Your task to perform on an android device: turn off location Image 0: 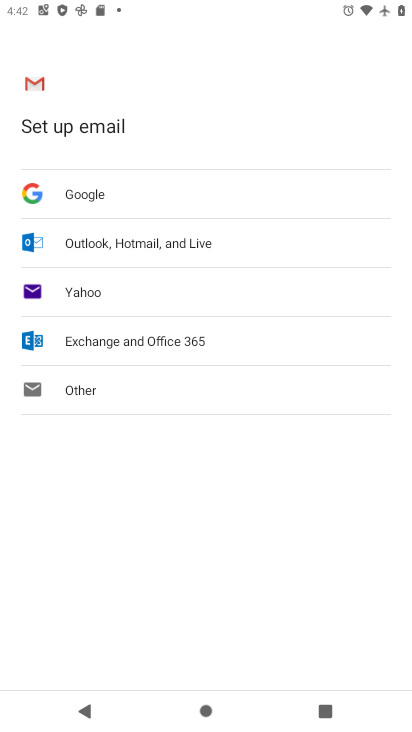
Step 0: press home button
Your task to perform on an android device: turn off location Image 1: 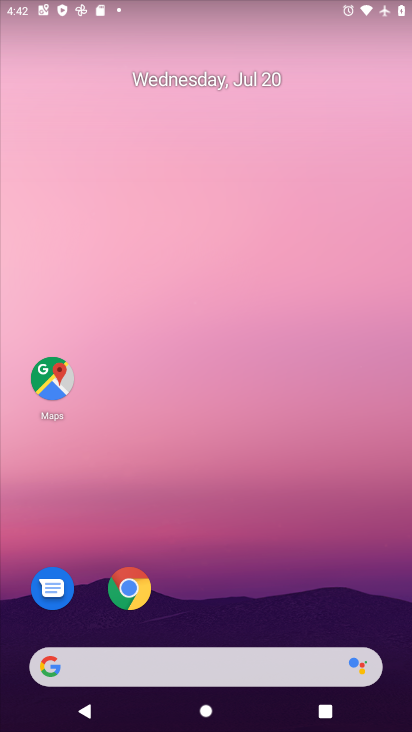
Step 1: drag from (290, 565) to (286, 85)
Your task to perform on an android device: turn off location Image 2: 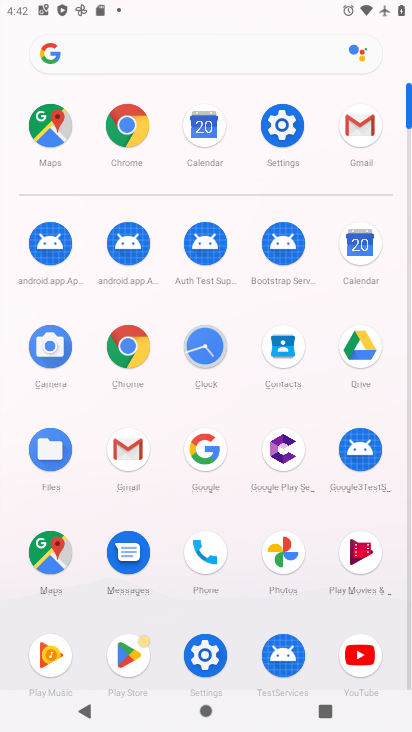
Step 2: click (284, 122)
Your task to perform on an android device: turn off location Image 3: 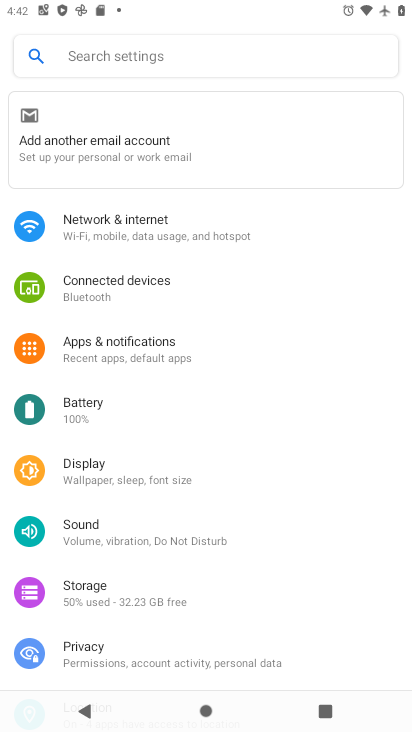
Step 3: drag from (164, 627) to (255, 297)
Your task to perform on an android device: turn off location Image 4: 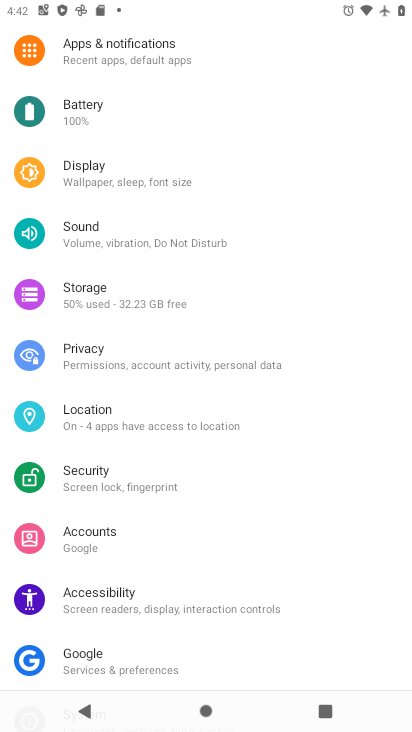
Step 4: click (127, 421)
Your task to perform on an android device: turn off location Image 5: 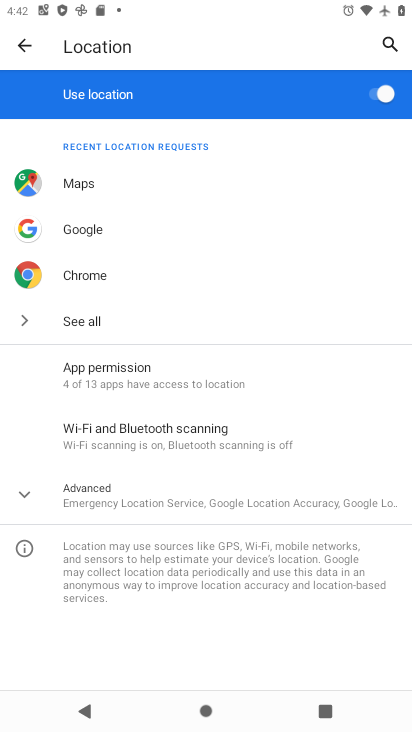
Step 5: click (382, 92)
Your task to perform on an android device: turn off location Image 6: 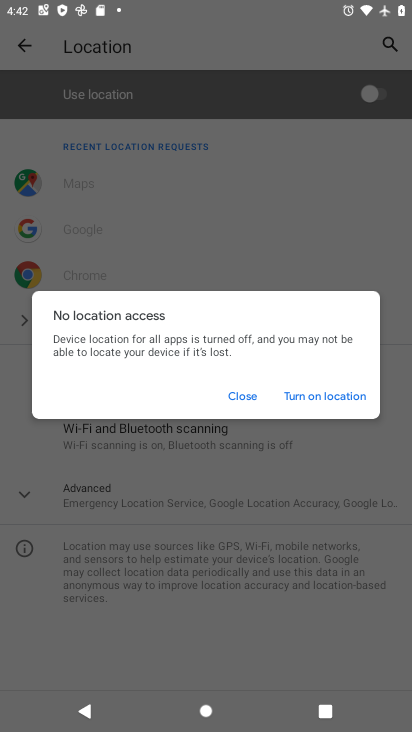
Step 6: task complete